Your task to perform on an android device: refresh tabs in the chrome app Image 0: 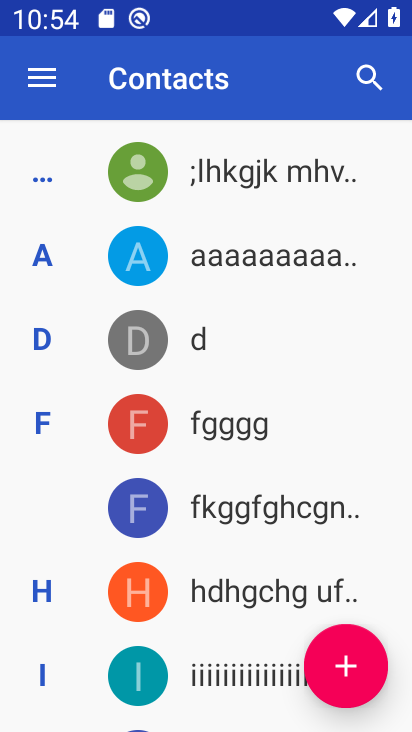
Step 0: press home button
Your task to perform on an android device: refresh tabs in the chrome app Image 1: 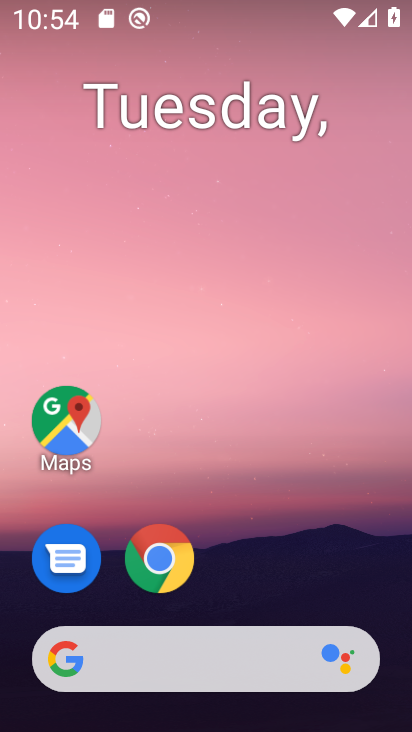
Step 1: drag from (327, 538) to (337, 72)
Your task to perform on an android device: refresh tabs in the chrome app Image 2: 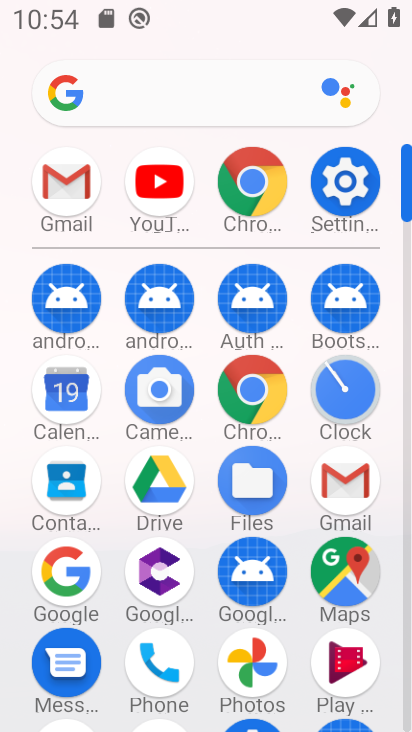
Step 2: click (258, 396)
Your task to perform on an android device: refresh tabs in the chrome app Image 3: 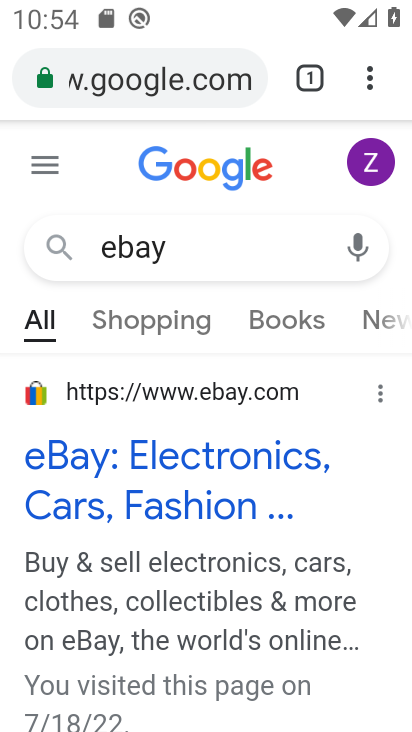
Step 3: click (372, 83)
Your task to perform on an android device: refresh tabs in the chrome app Image 4: 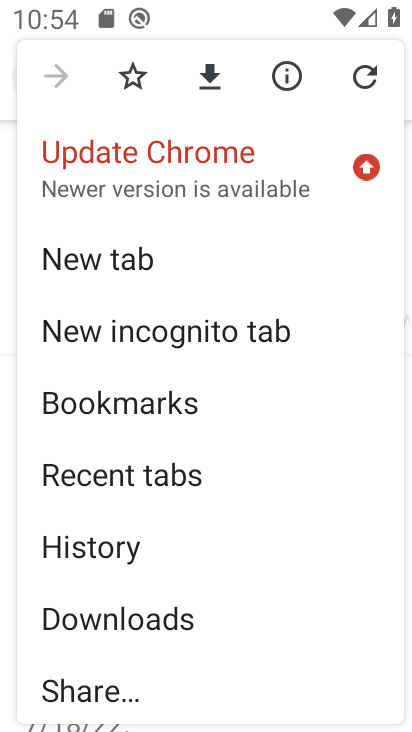
Step 4: click (367, 81)
Your task to perform on an android device: refresh tabs in the chrome app Image 5: 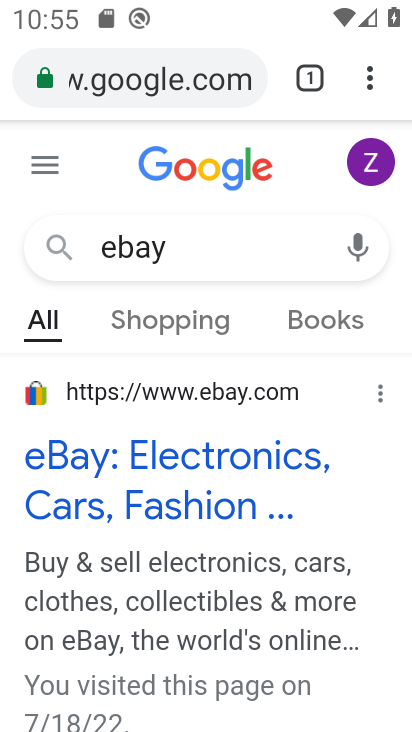
Step 5: task complete